Your task to perform on an android device: Turn on the flashlight Image 0: 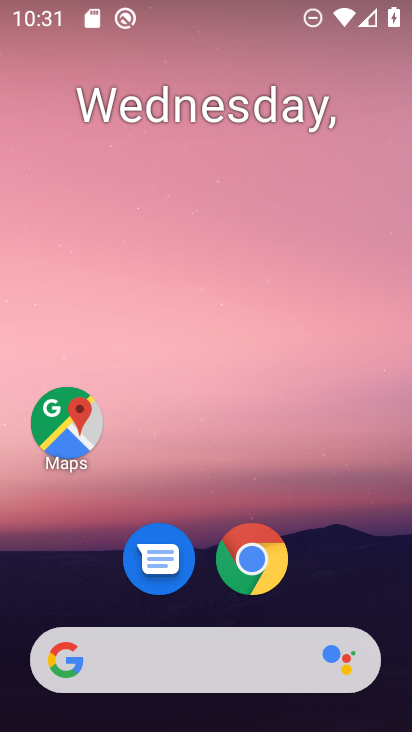
Step 0: click (364, 570)
Your task to perform on an android device: Turn on the flashlight Image 1: 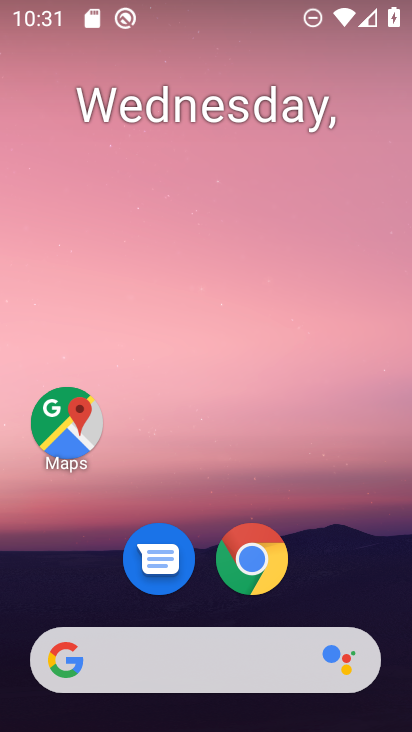
Step 1: drag from (236, 5) to (252, 455)
Your task to perform on an android device: Turn on the flashlight Image 2: 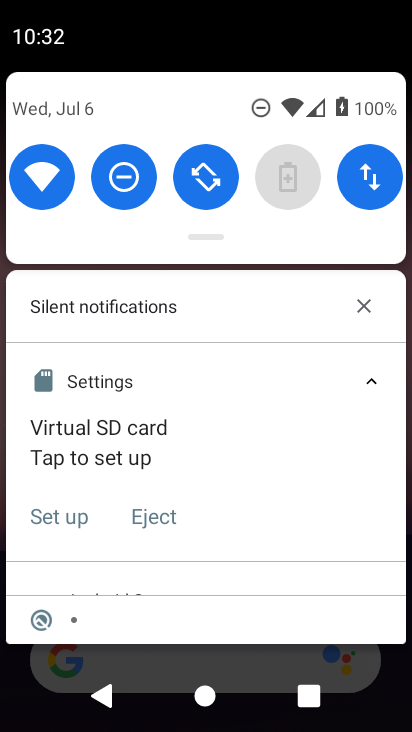
Step 2: drag from (229, 127) to (268, 362)
Your task to perform on an android device: Turn on the flashlight Image 3: 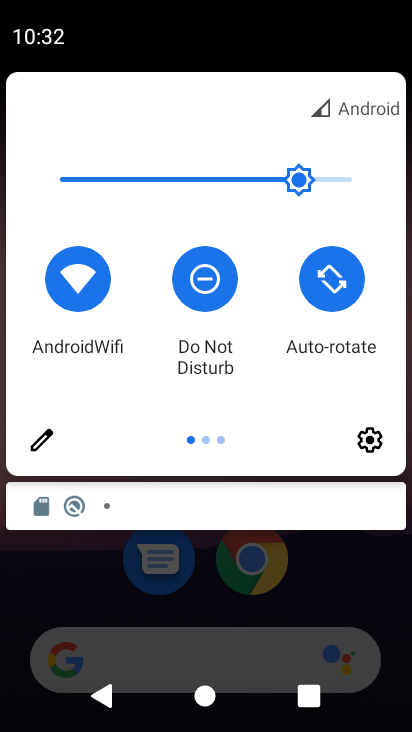
Step 3: click (43, 438)
Your task to perform on an android device: Turn on the flashlight Image 4: 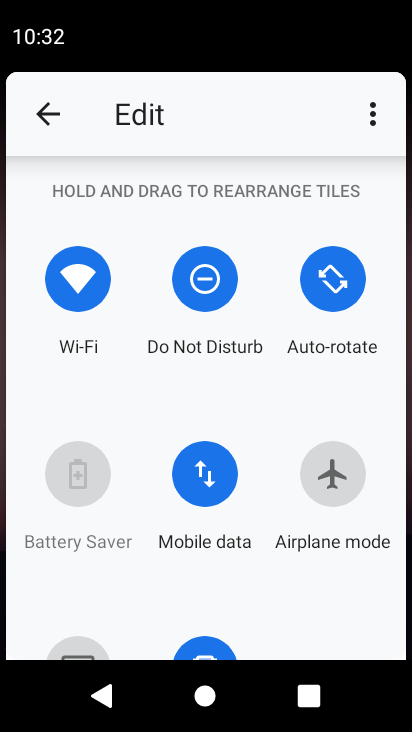
Step 4: task complete